Your task to perform on an android device: Go to Maps Image 0: 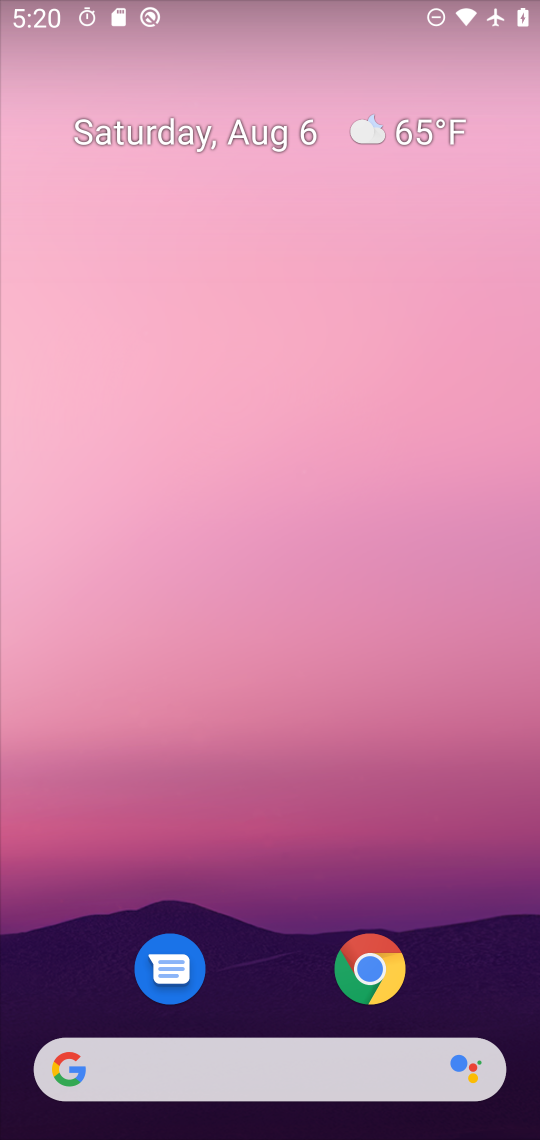
Step 0: press home button
Your task to perform on an android device: Go to Maps Image 1: 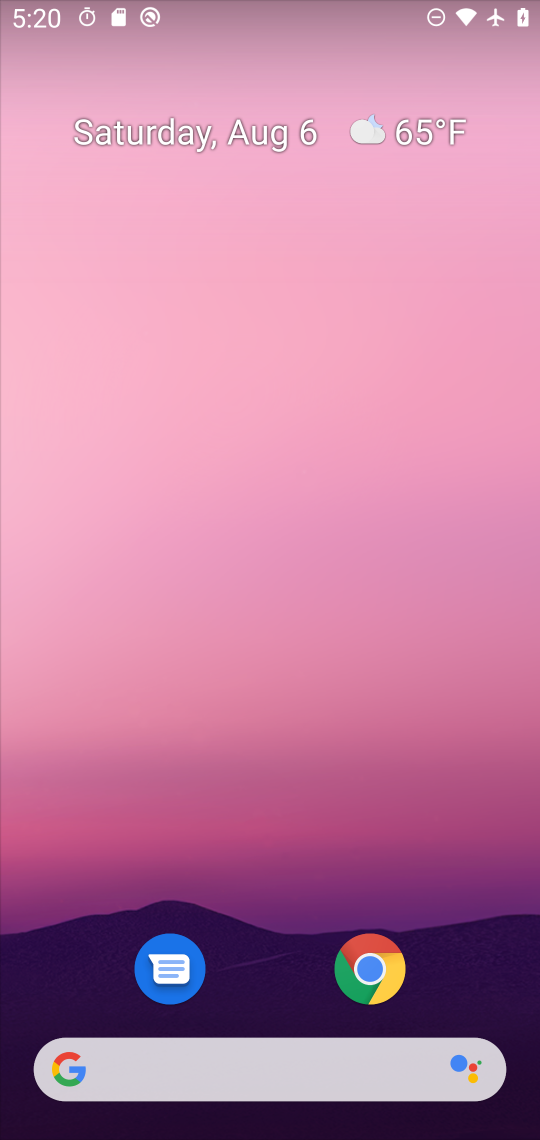
Step 1: drag from (245, 1004) to (267, 8)
Your task to perform on an android device: Go to Maps Image 2: 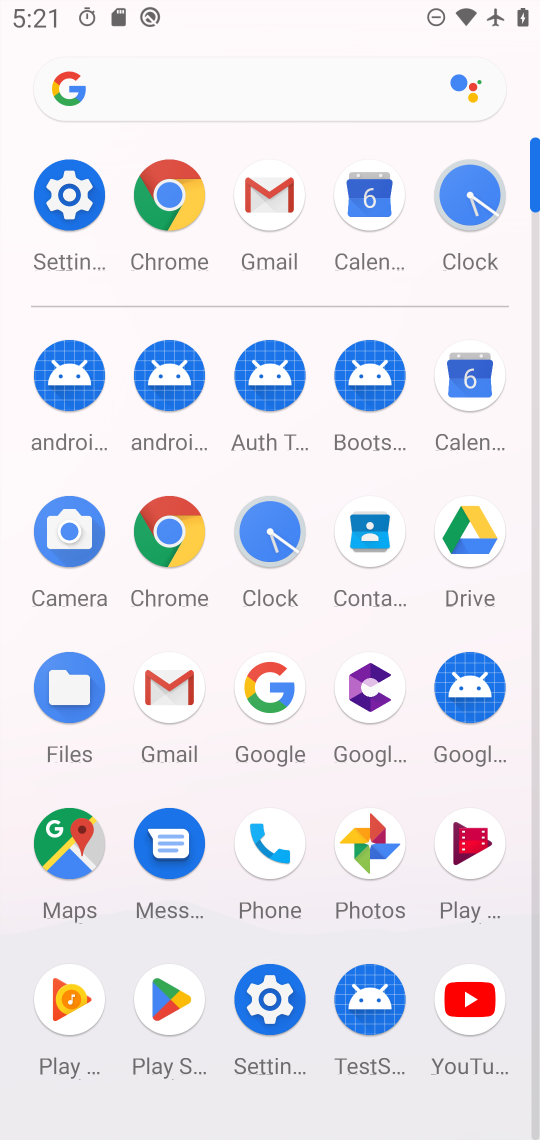
Step 2: click (46, 849)
Your task to perform on an android device: Go to Maps Image 3: 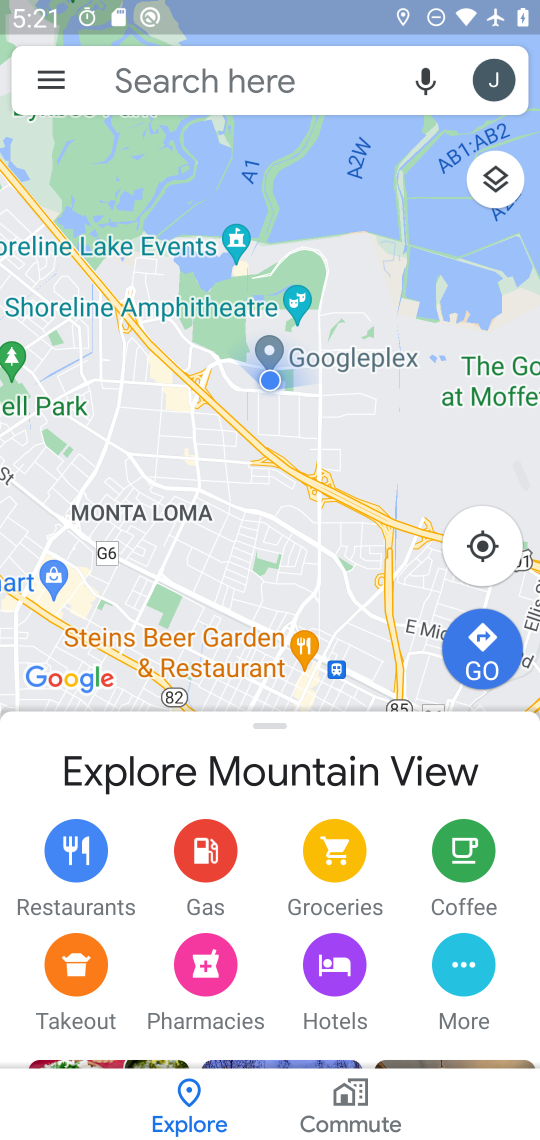
Step 3: task complete